Your task to perform on an android device: Go to Maps Image 0: 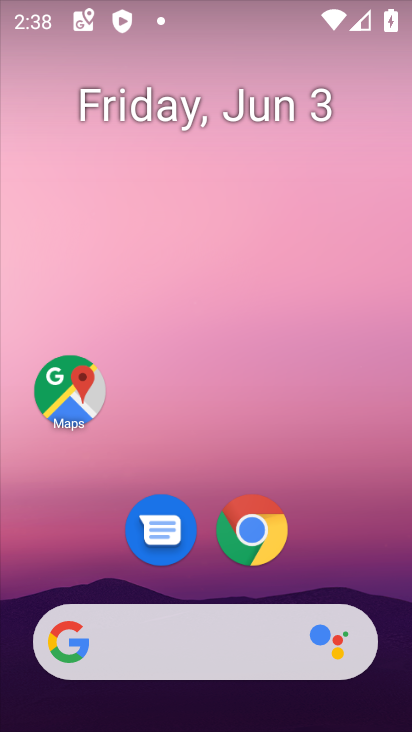
Step 0: click (62, 400)
Your task to perform on an android device: Go to Maps Image 1: 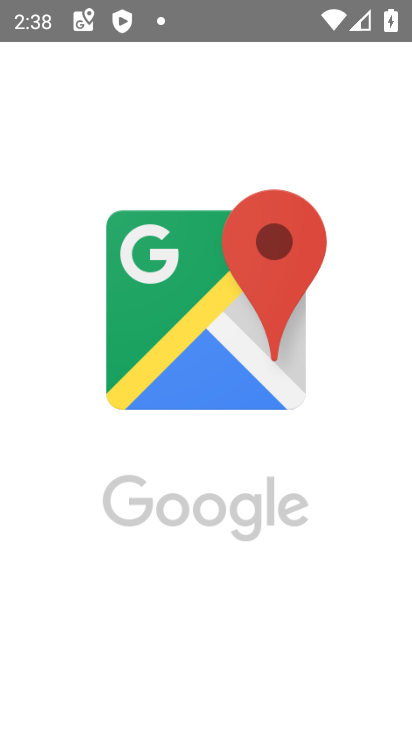
Step 1: click (69, 404)
Your task to perform on an android device: Go to Maps Image 2: 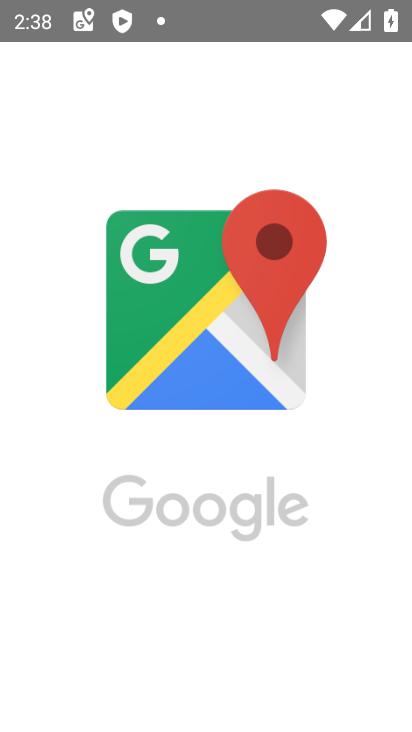
Step 2: click (73, 398)
Your task to perform on an android device: Go to Maps Image 3: 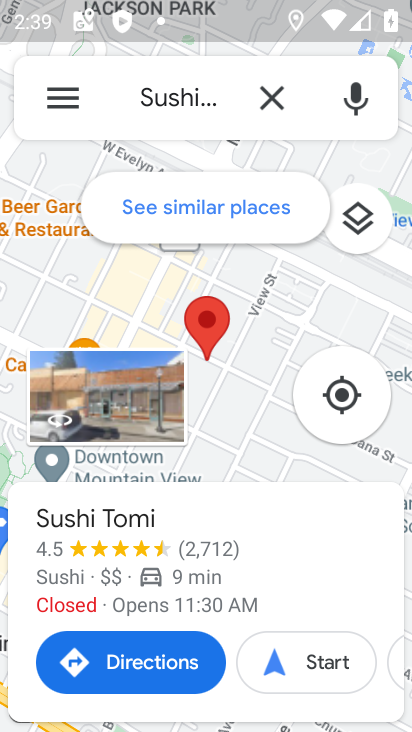
Step 3: task complete